Your task to perform on an android device: turn off airplane mode Image 0: 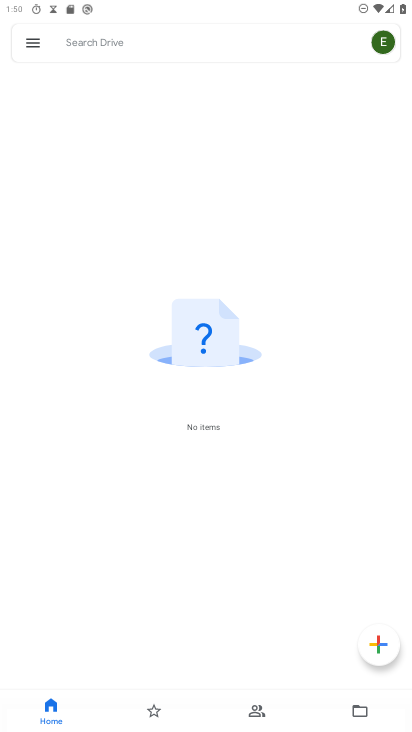
Step 0: press home button
Your task to perform on an android device: turn off airplane mode Image 1: 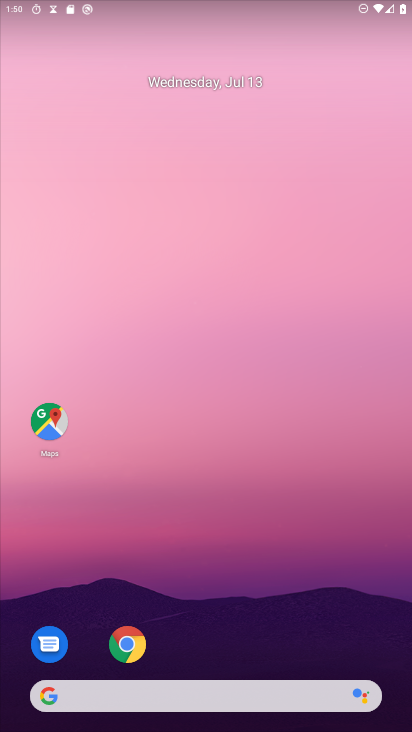
Step 1: task complete